Your task to perform on an android device: turn off notifications in google photos Image 0: 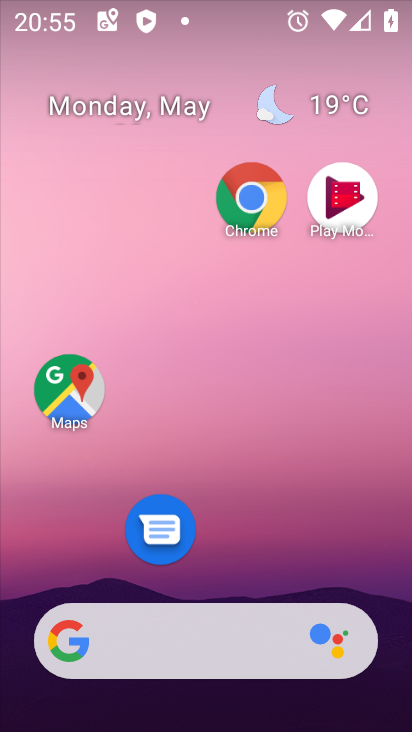
Step 0: drag from (272, 547) to (246, 62)
Your task to perform on an android device: turn off notifications in google photos Image 1: 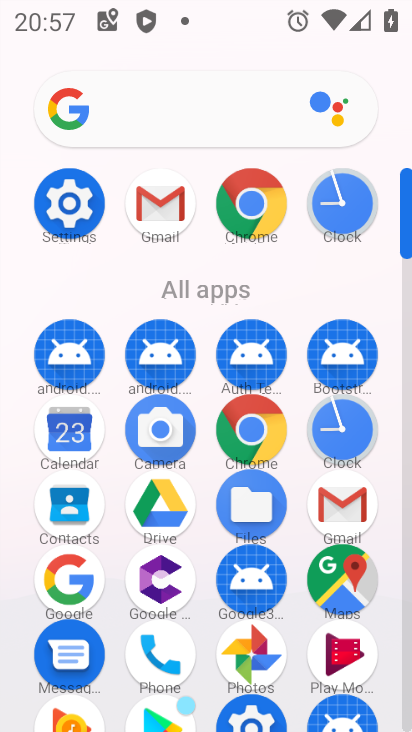
Step 1: drag from (189, 620) to (224, 264)
Your task to perform on an android device: turn off notifications in google photos Image 2: 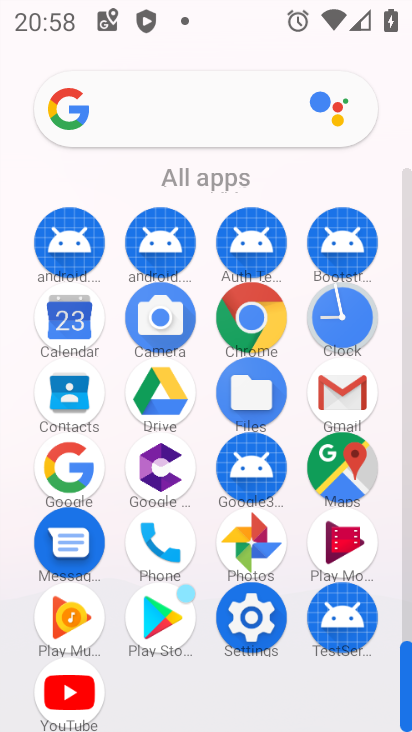
Step 2: click (242, 531)
Your task to perform on an android device: turn off notifications in google photos Image 3: 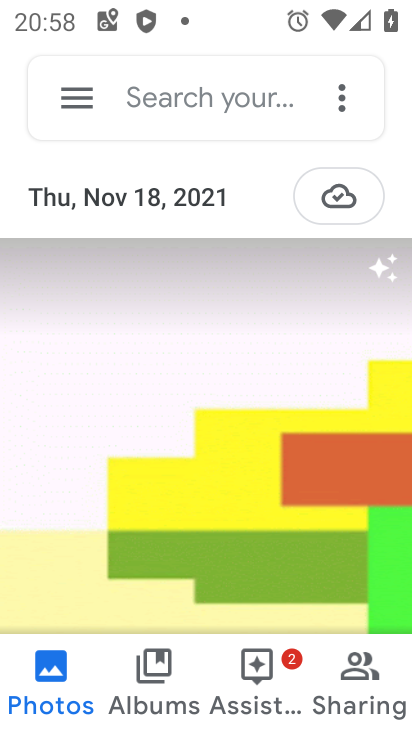
Step 3: click (82, 112)
Your task to perform on an android device: turn off notifications in google photos Image 4: 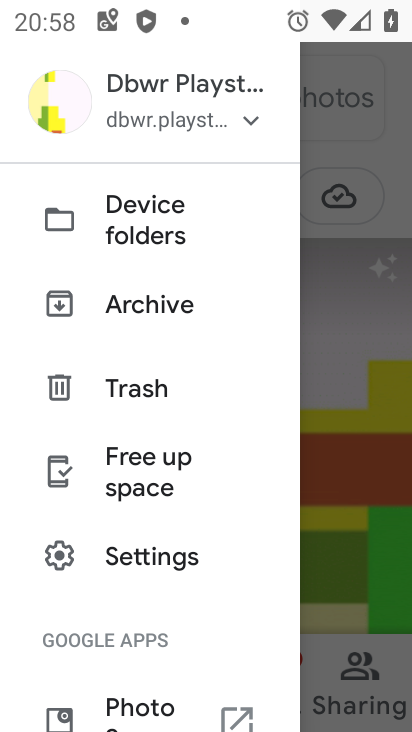
Step 4: drag from (158, 601) to (184, 448)
Your task to perform on an android device: turn off notifications in google photos Image 5: 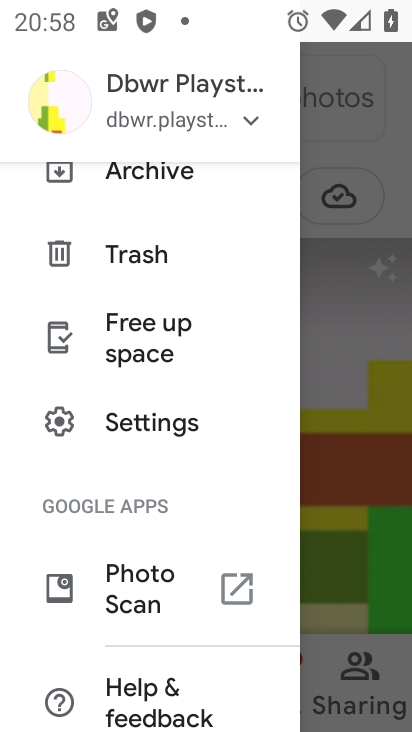
Step 5: click (163, 426)
Your task to perform on an android device: turn off notifications in google photos Image 6: 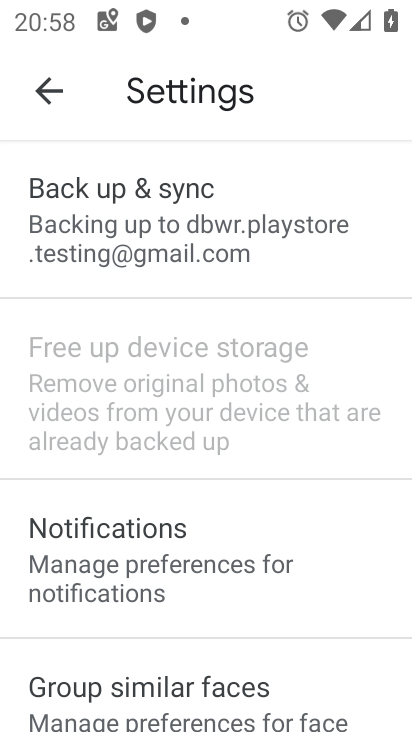
Step 6: click (144, 560)
Your task to perform on an android device: turn off notifications in google photos Image 7: 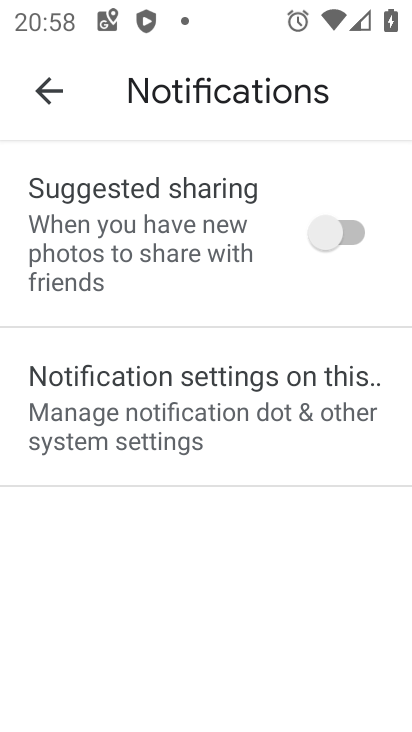
Step 7: click (174, 454)
Your task to perform on an android device: turn off notifications in google photos Image 8: 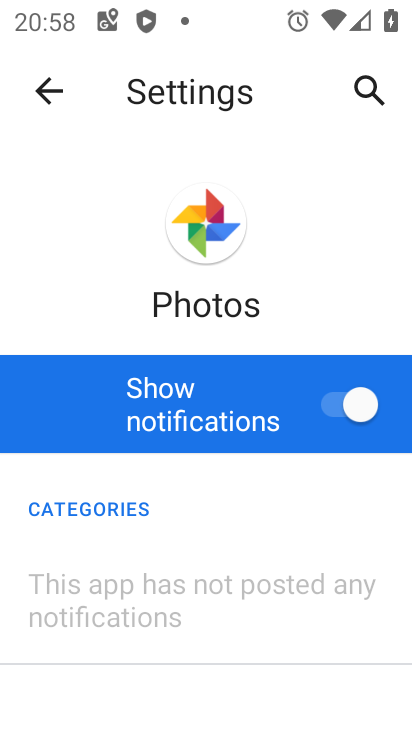
Step 8: click (336, 407)
Your task to perform on an android device: turn off notifications in google photos Image 9: 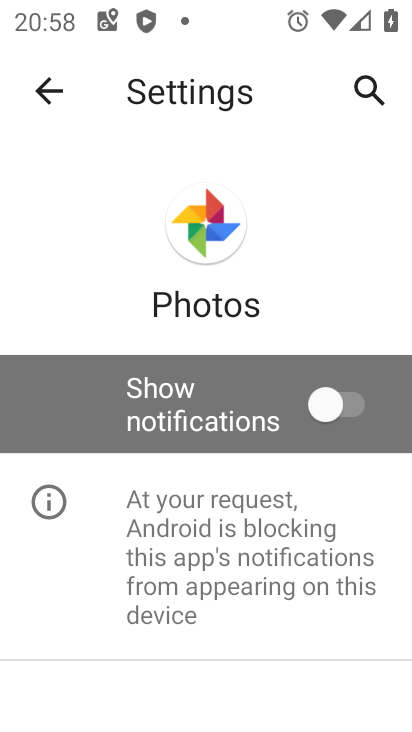
Step 9: task complete